Your task to perform on an android device: see creations saved in the google photos Image 0: 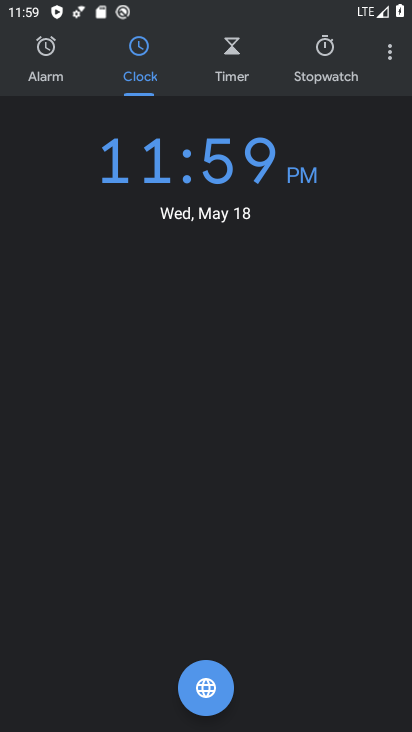
Step 0: press back button
Your task to perform on an android device: see creations saved in the google photos Image 1: 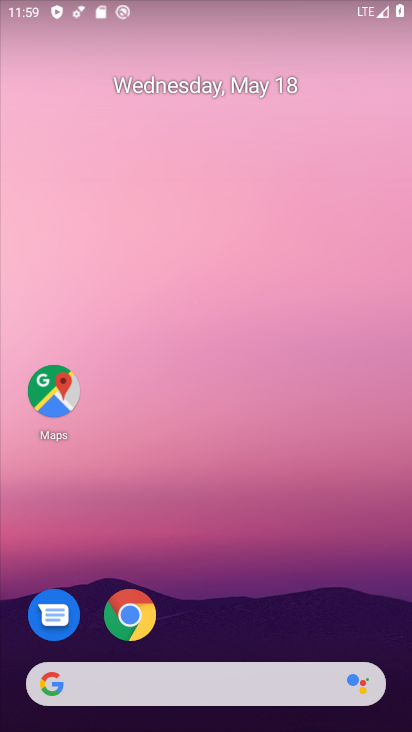
Step 1: drag from (235, 548) to (188, 20)
Your task to perform on an android device: see creations saved in the google photos Image 2: 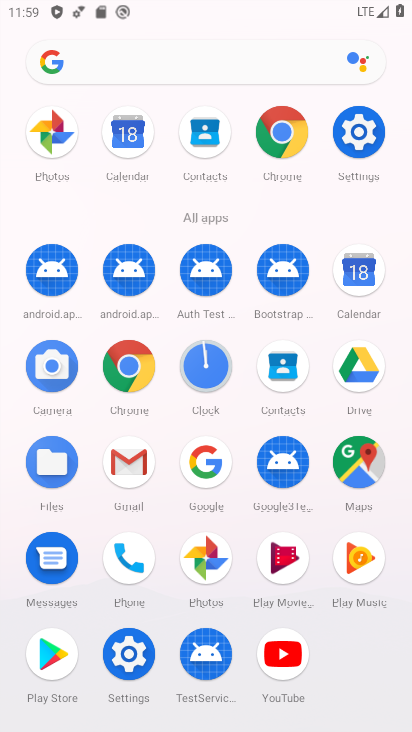
Step 2: click (209, 557)
Your task to perform on an android device: see creations saved in the google photos Image 3: 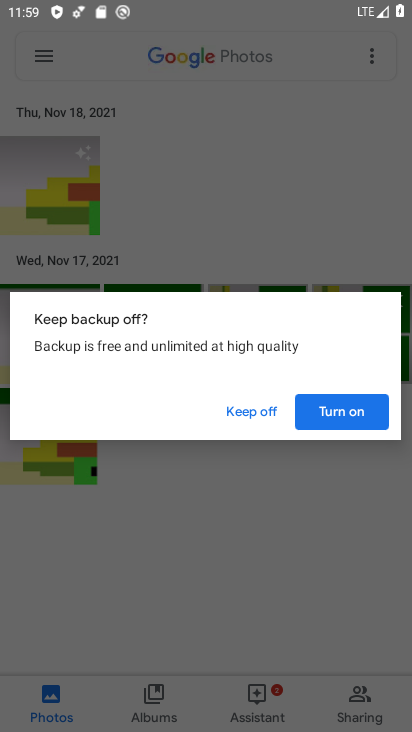
Step 3: press back button
Your task to perform on an android device: see creations saved in the google photos Image 4: 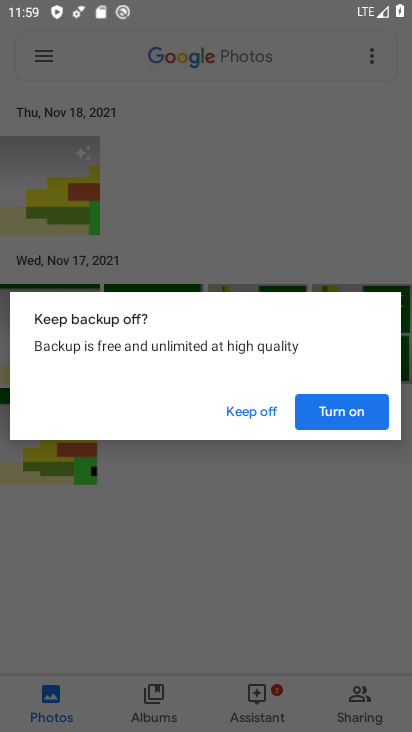
Step 4: press back button
Your task to perform on an android device: see creations saved in the google photos Image 5: 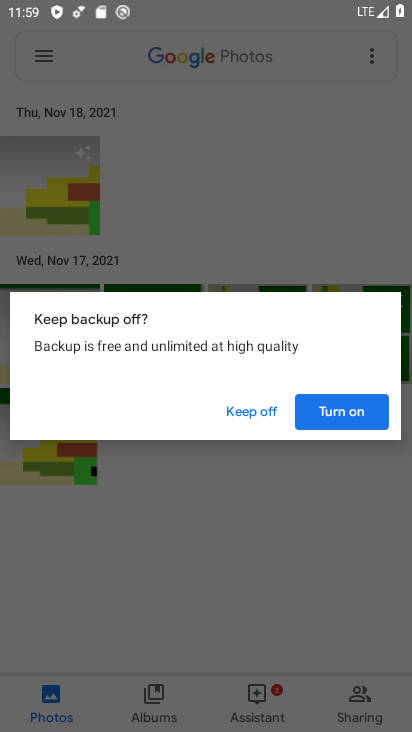
Step 5: press back button
Your task to perform on an android device: see creations saved in the google photos Image 6: 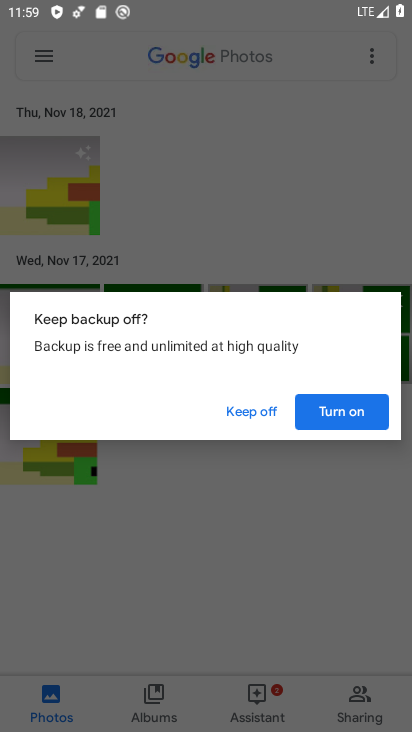
Step 6: click (354, 417)
Your task to perform on an android device: see creations saved in the google photos Image 7: 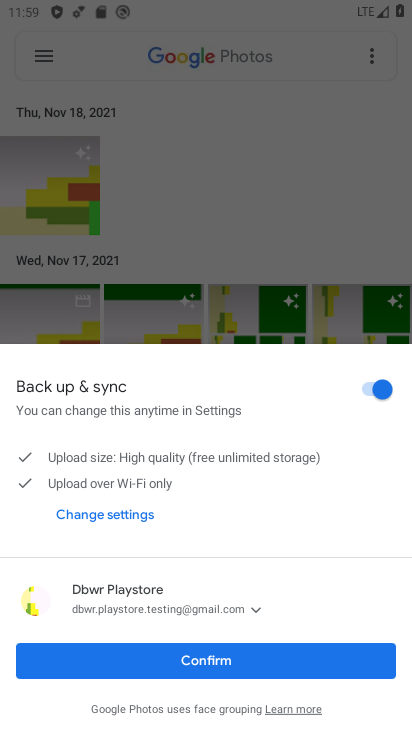
Step 7: click (226, 661)
Your task to perform on an android device: see creations saved in the google photos Image 8: 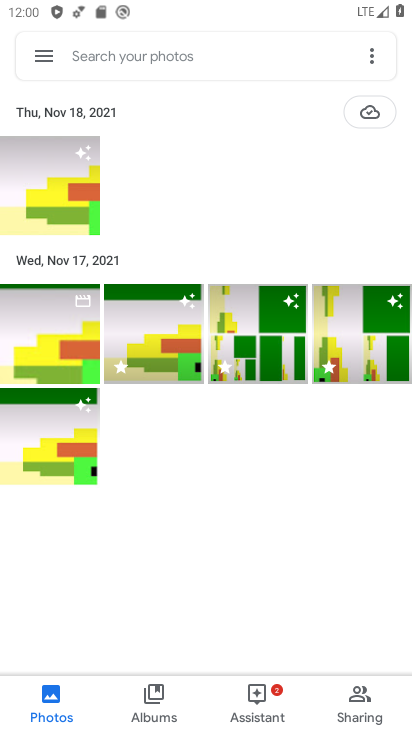
Step 8: task complete